Your task to perform on an android device: Open notification settings Image 0: 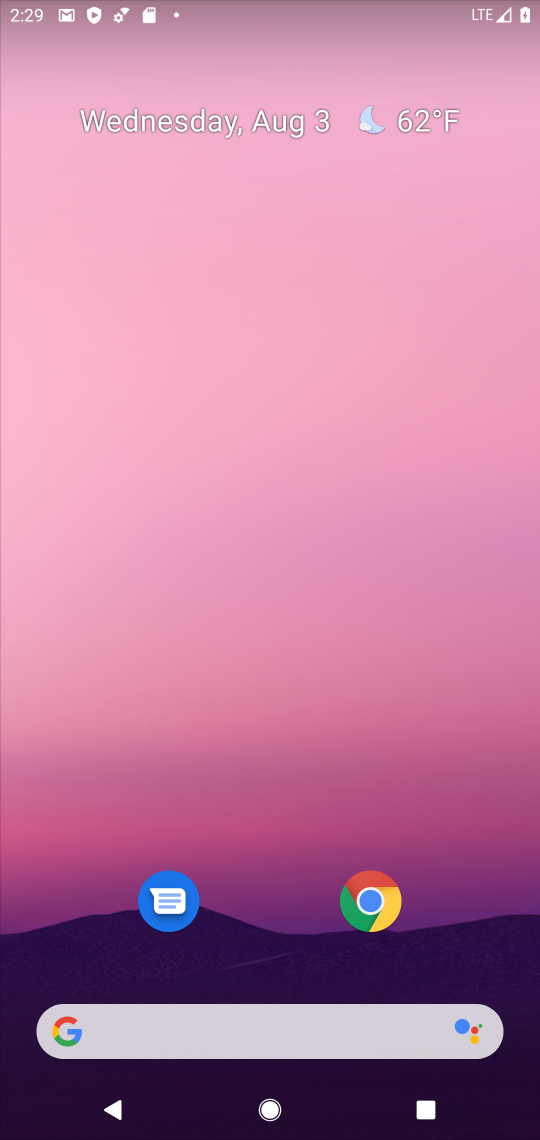
Step 0: drag from (305, 849) to (294, 270)
Your task to perform on an android device: Open notification settings Image 1: 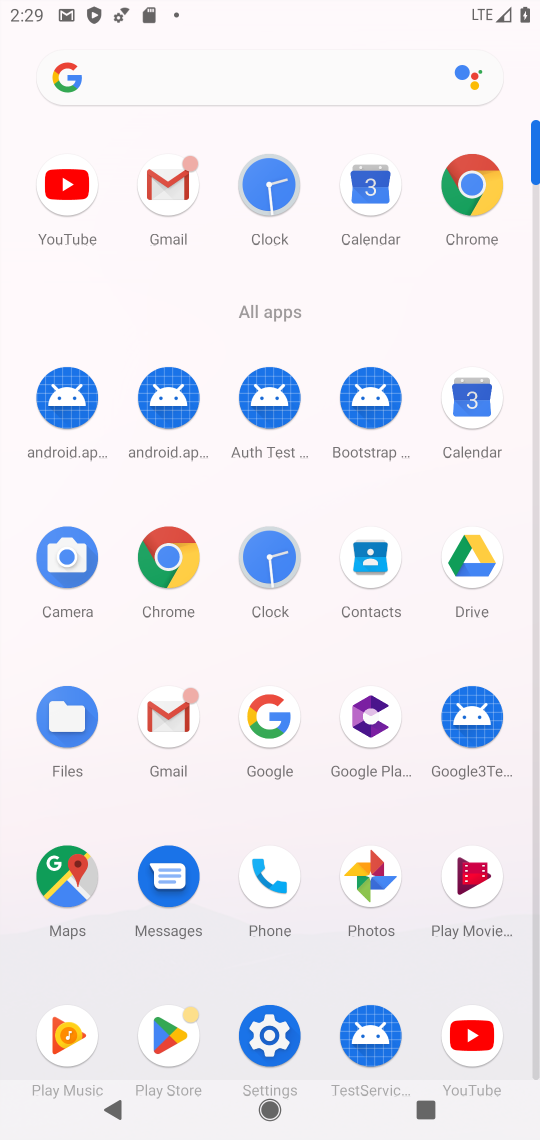
Step 1: click (266, 1038)
Your task to perform on an android device: Open notification settings Image 2: 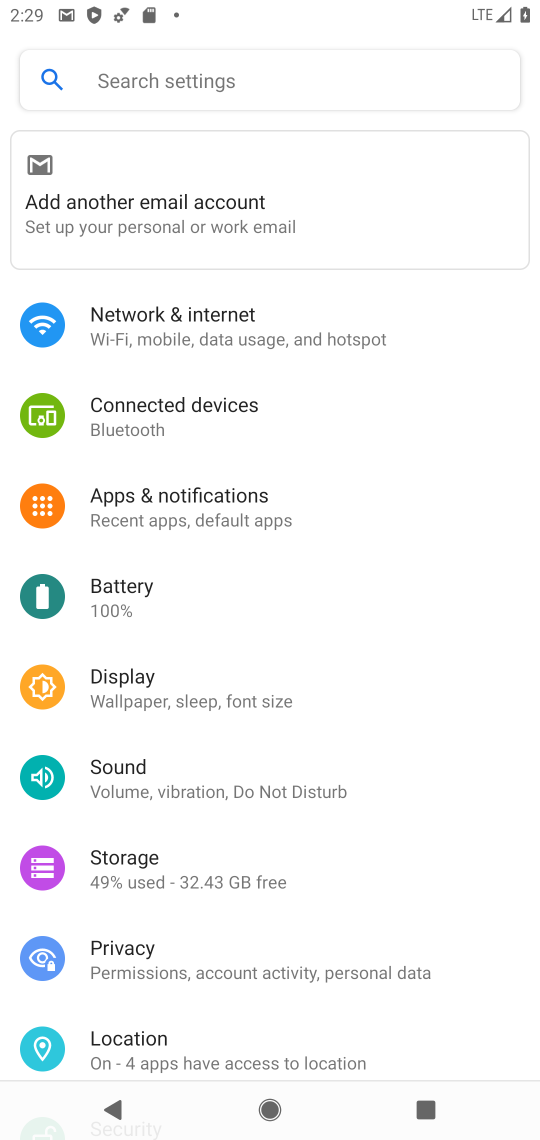
Step 2: click (159, 547)
Your task to perform on an android device: Open notification settings Image 3: 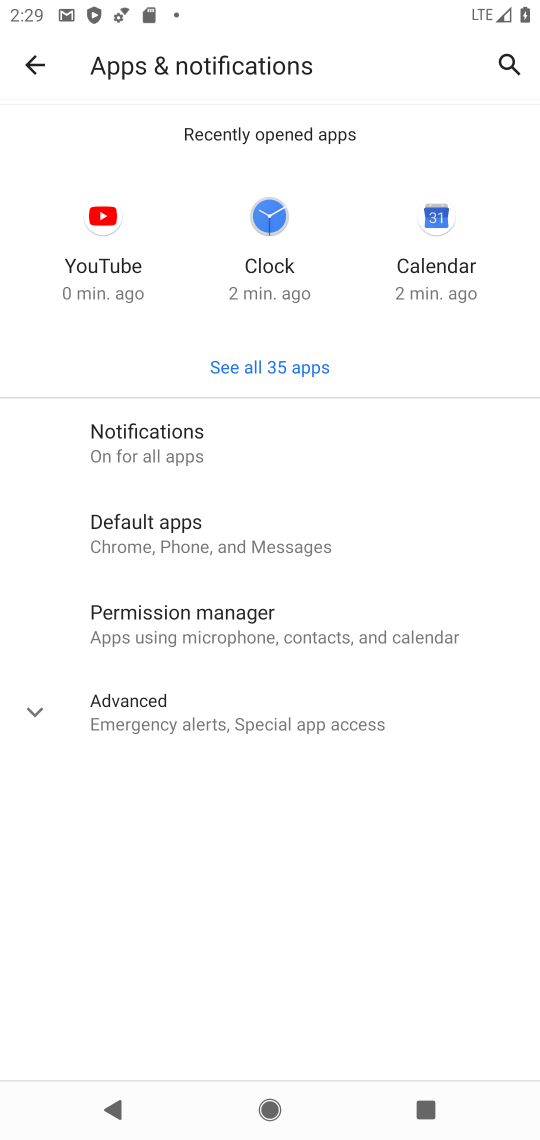
Step 3: click (174, 437)
Your task to perform on an android device: Open notification settings Image 4: 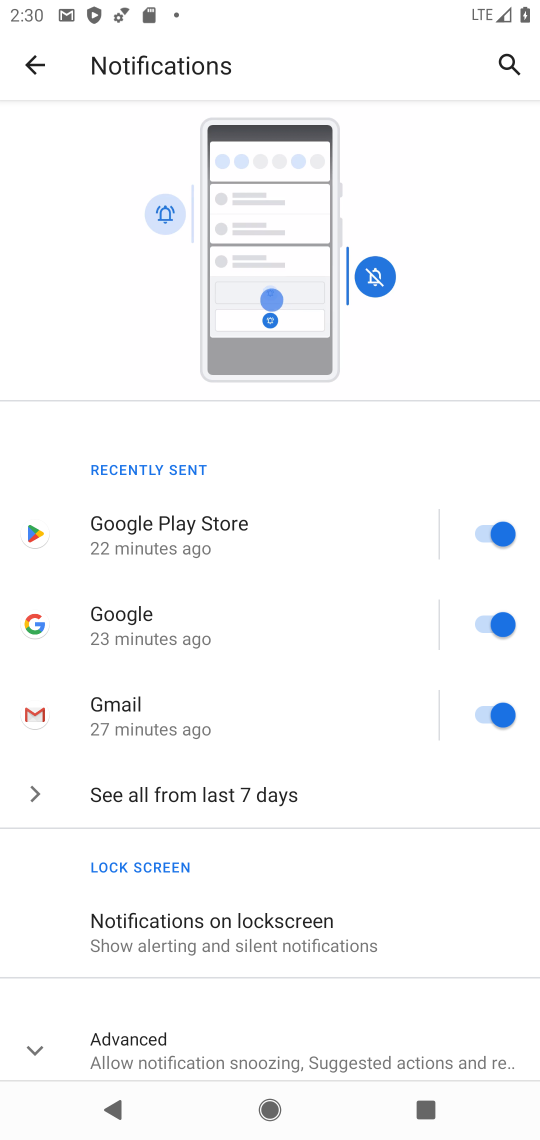
Step 4: task complete